Your task to perform on an android device: Open calendar and show me the first week of next month Image 0: 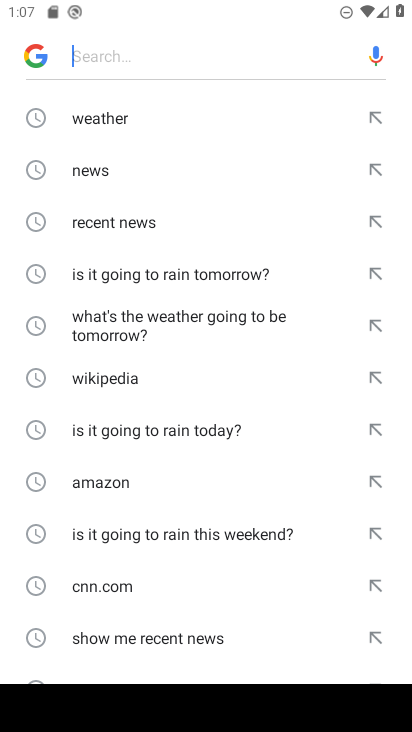
Step 0: press home button
Your task to perform on an android device: Open calendar and show me the first week of next month Image 1: 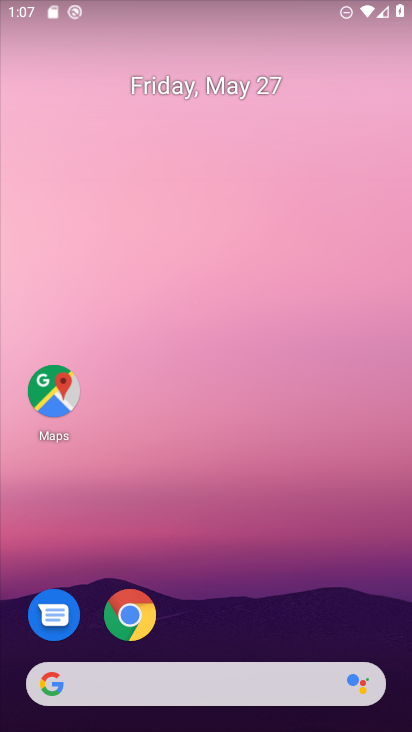
Step 1: drag from (286, 475) to (276, 149)
Your task to perform on an android device: Open calendar and show me the first week of next month Image 2: 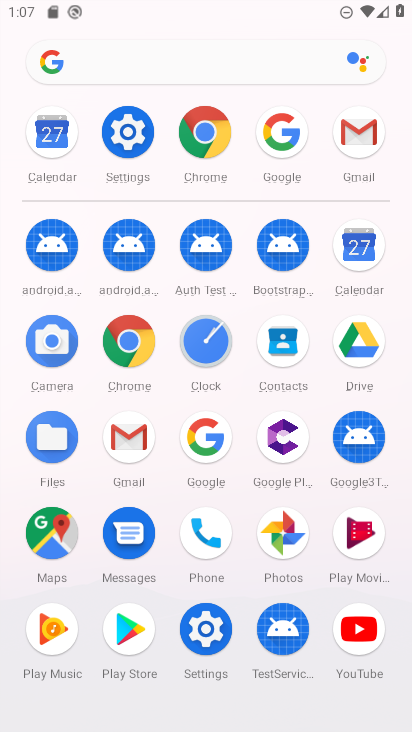
Step 2: click (348, 258)
Your task to perform on an android device: Open calendar and show me the first week of next month Image 3: 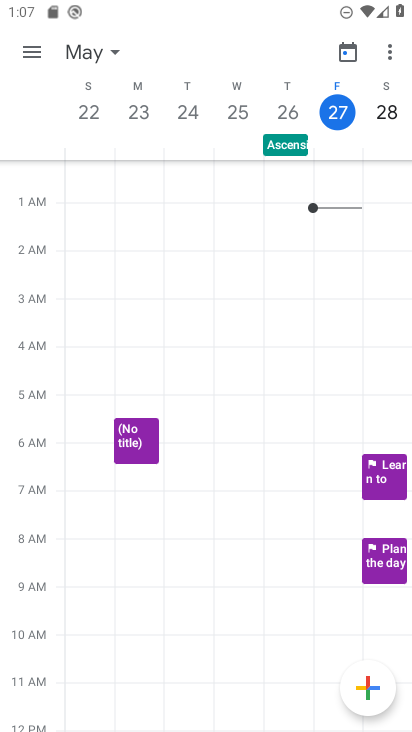
Step 3: click (111, 60)
Your task to perform on an android device: Open calendar and show me the first week of next month Image 4: 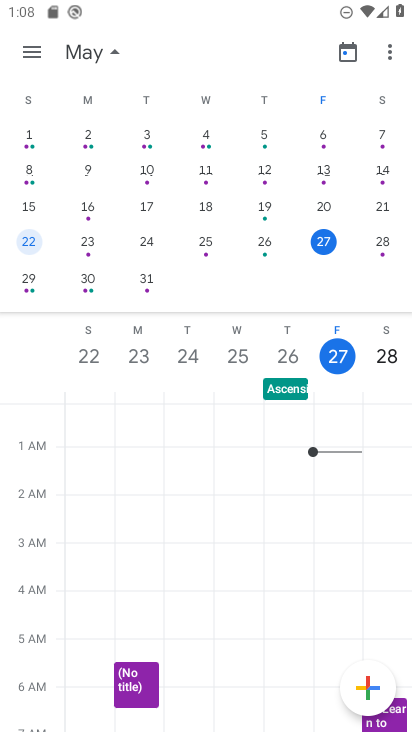
Step 4: drag from (345, 317) to (68, 290)
Your task to perform on an android device: Open calendar and show me the first week of next month Image 5: 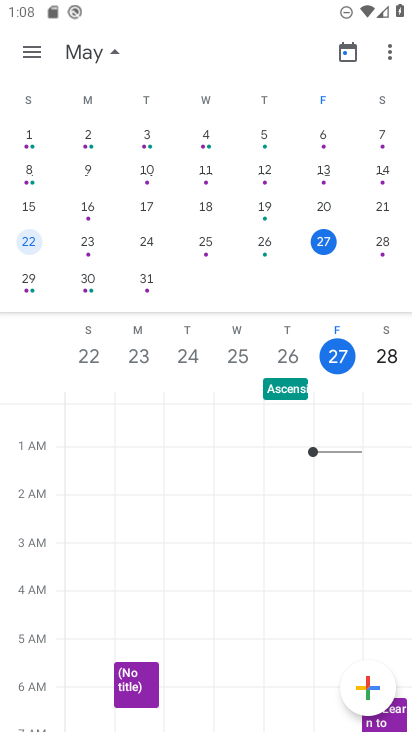
Step 5: drag from (334, 180) to (34, 233)
Your task to perform on an android device: Open calendar and show me the first week of next month Image 6: 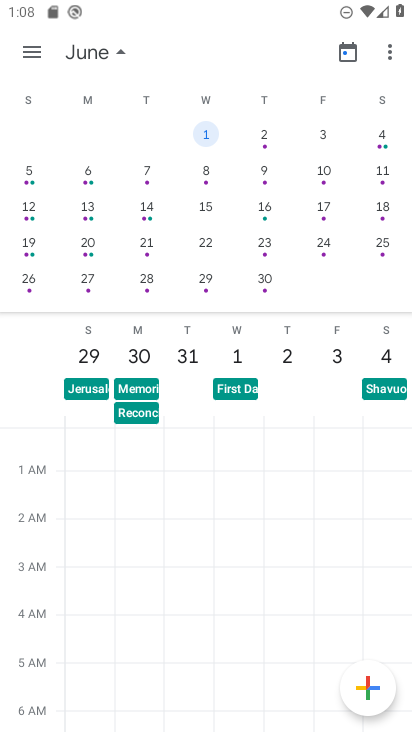
Step 6: click (107, 55)
Your task to perform on an android device: Open calendar and show me the first week of next month Image 7: 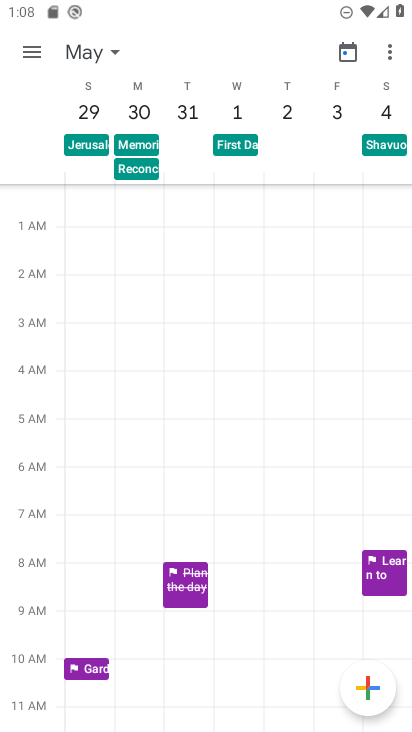
Step 7: task complete